Your task to perform on an android device: Search for pizza restaurants on Maps Image 0: 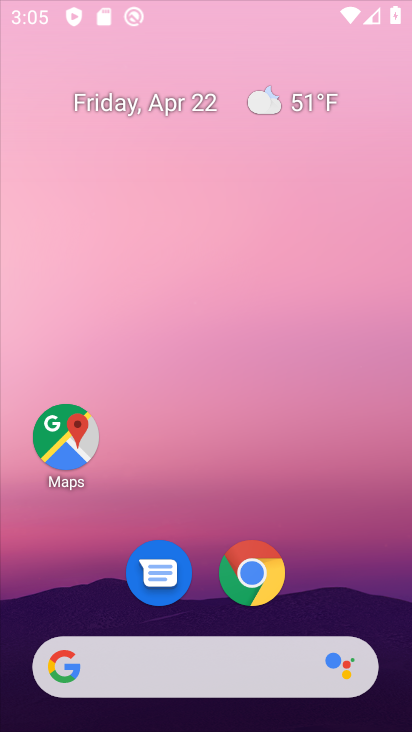
Step 0: click (59, 439)
Your task to perform on an android device: Search for pizza restaurants on Maps Image 1: 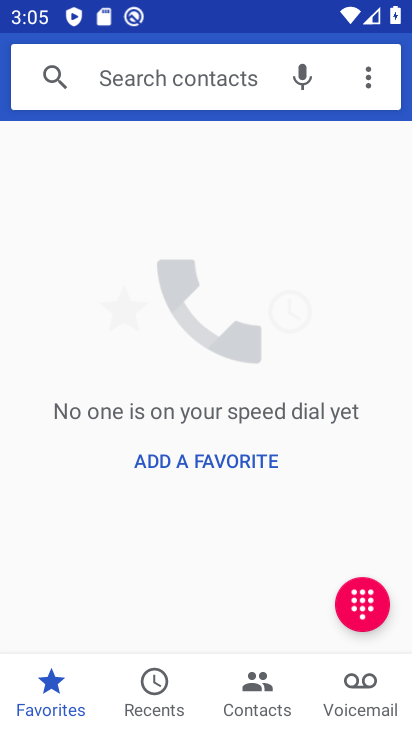
Step 1: press home button
Your task to perform on an android device: Search for pizza restaurants on Maps Image 2: 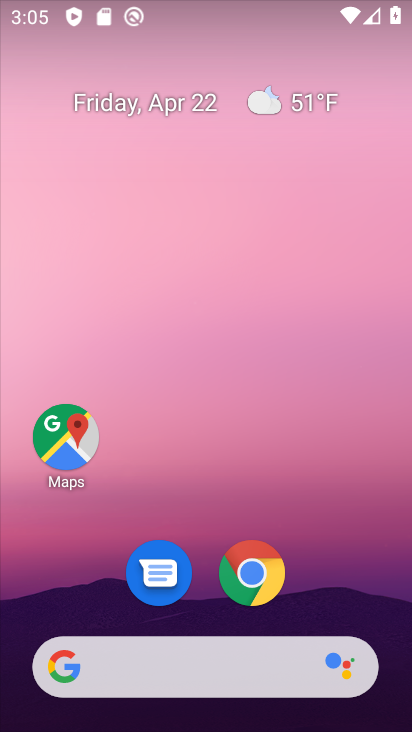
Step 2: click (52, 436)
Your task to perform on an android device: Search for pizza restaurants on Maps Image 3: 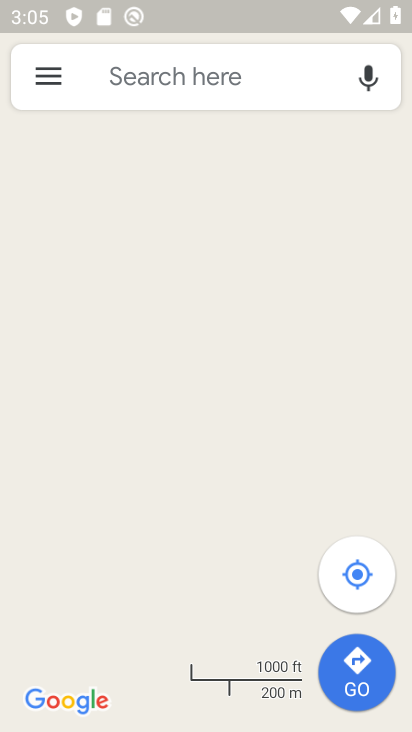
Step 3: click (180, 77)
Your task to perform on an android device: Search for pizza restaurants on Maps Image 4: 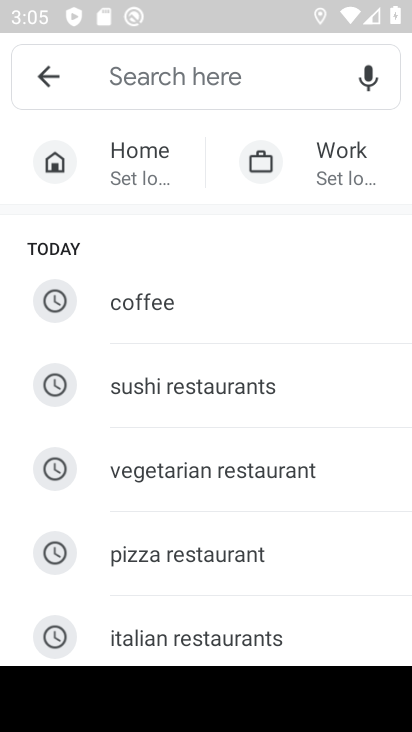
Step 4: type "pizza restaurants"
Your task to perform on an android device: Search for pizza restaurants on Maps Image 5: 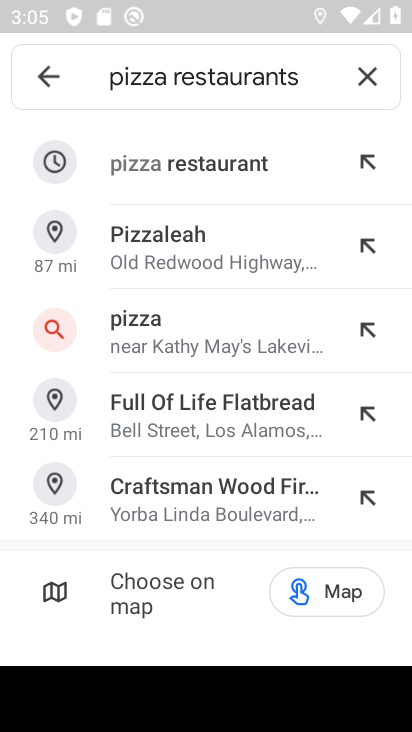
Step 5: task complete